Your task to perform on an android device: Go to sound settings Image 0: 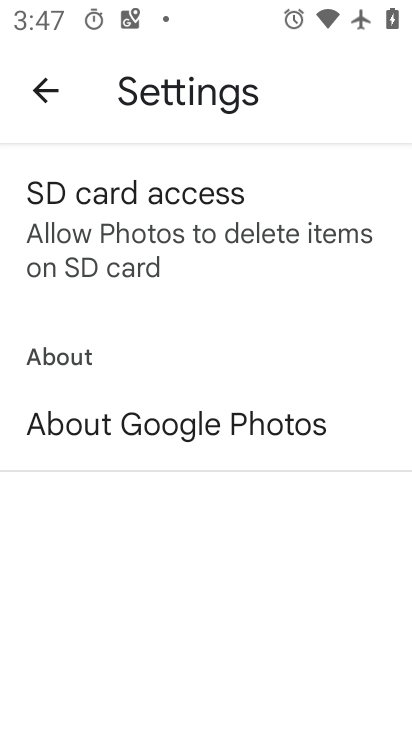
Step 0: click (160, 654)
Your task to perform on an android device: Go to sound settings Image 1: 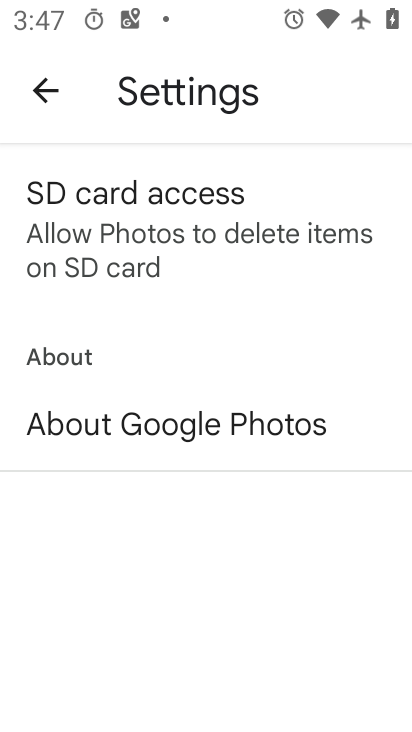
Step 1: press home button
Your task to perform on an android device: Go to sound settings Image 2: 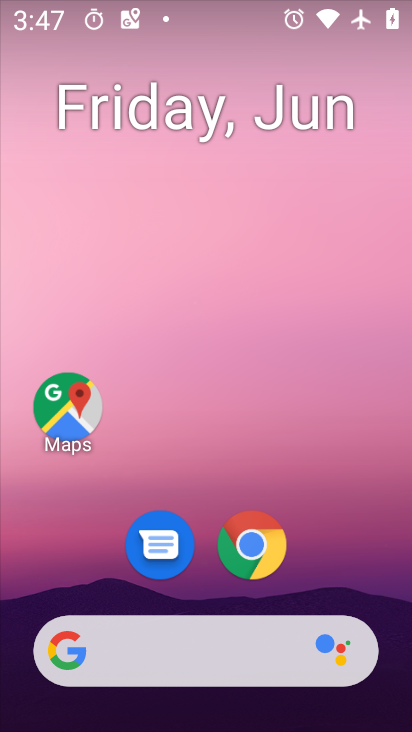
Step 2: drag from (323, 529) to (352, 13)
Your task to perform on an android device: Go to sound settings Image 3: 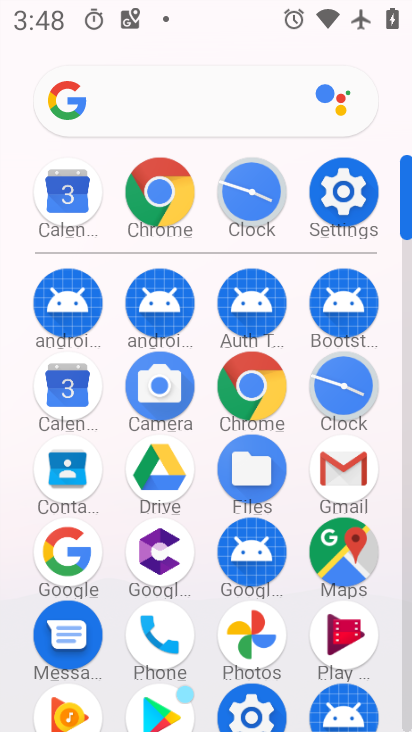
Step 3: click (327, 187)
Your task to perform on an android device: Go to sound settings Image 4: 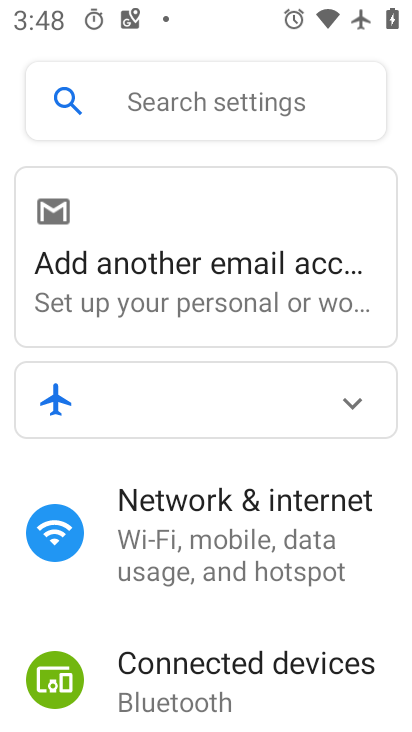
Step 4: drag from (177, 592) to (173, 113)
Your task to perform on an android device: Go to sound settings Image 5: 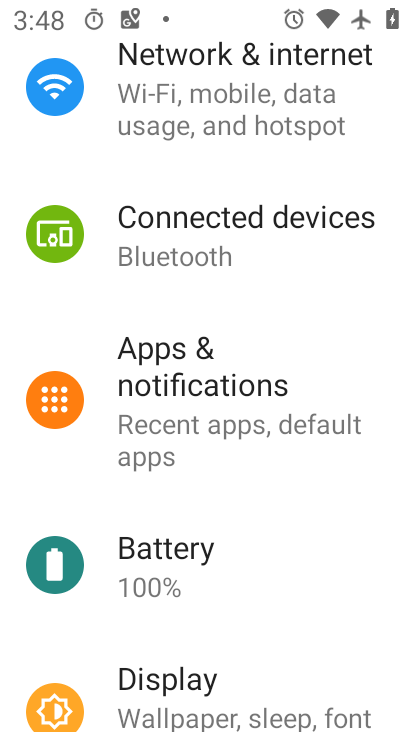
Step 5: drag from (189, 646) to (189, 269)
Your task to perform on an android device: Go to sound settings Image 6: 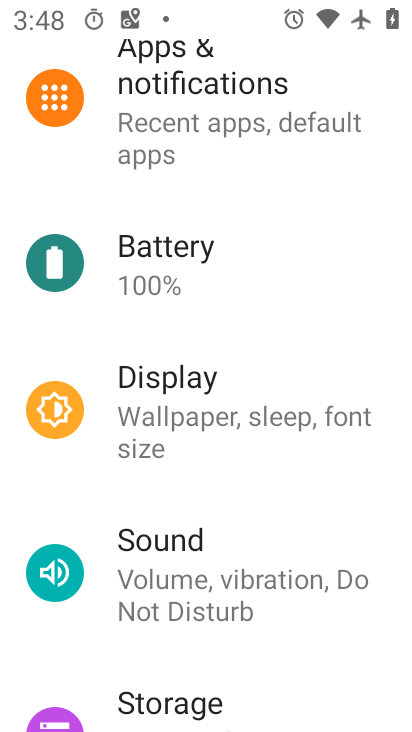
Step 6: click (204, 599)
Your task to perform on an android device: Go to sound settings Image 7: 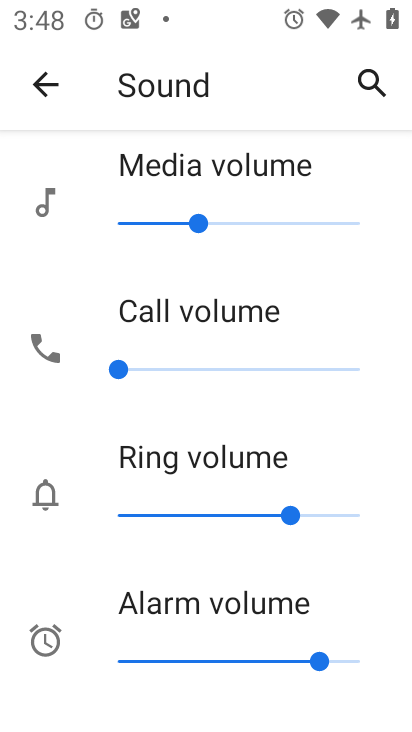
Step 7: task complete